Your task to perform on an android device: Go to accessibility settings Image 0: 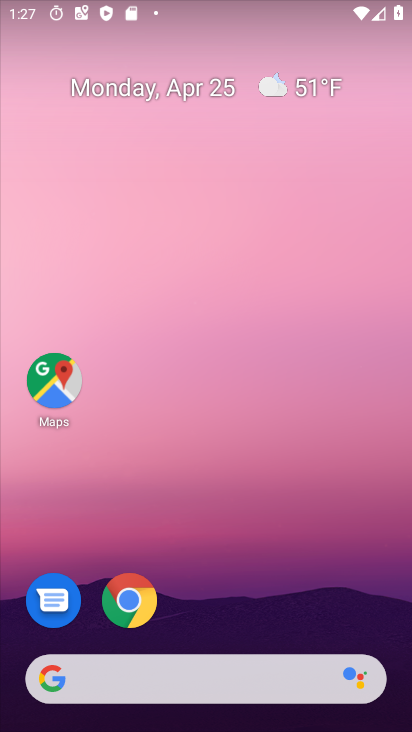
Step 0: drag from (162, 683) to (282, 213)
Your task to perform on an android device: Go to accessibility settings Image 1: 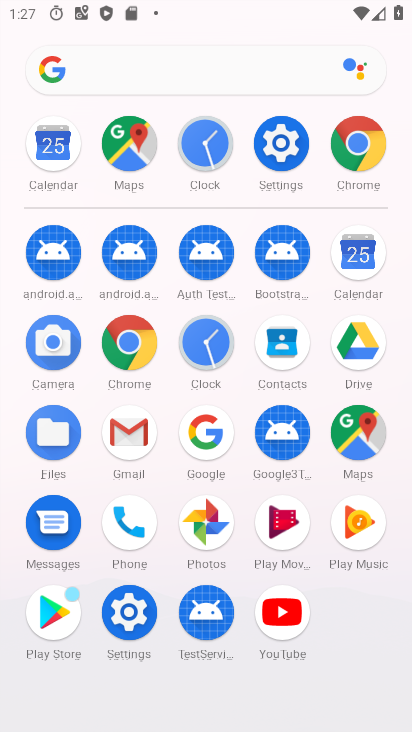
Step 1: click (285, 144)
Your task to perform on an android device: Go to accessibility settings Image 2: 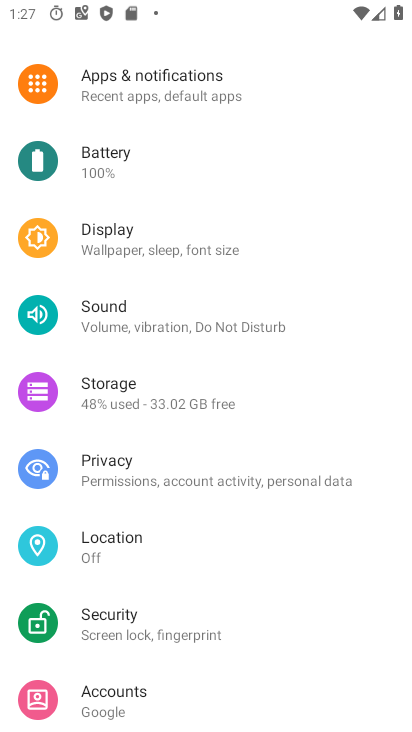
Step 2: drag from (201, 573) to (357, 136)
Your task to perform on an android device: Go to accessibility settings Image 3: 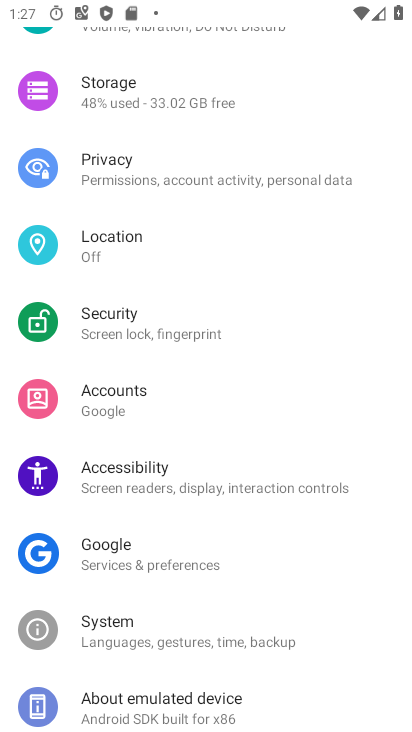
Step 3: click (164, 471)
Your task to perform on an android device: Go to accessibility settings Image 4: 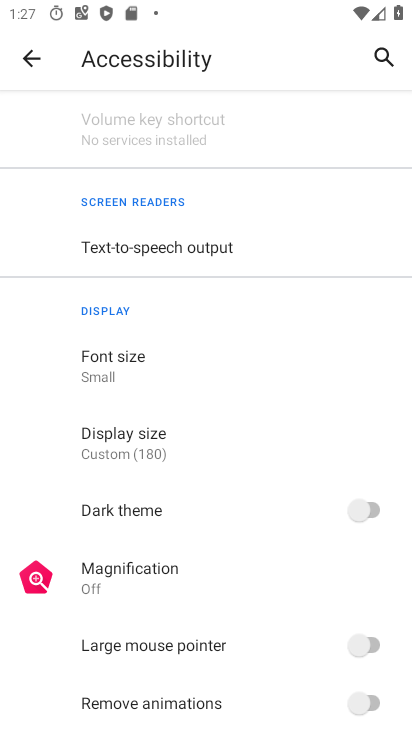
Step 4: task complete